Your task to perform on an android device: Go to internet settings Image 0: 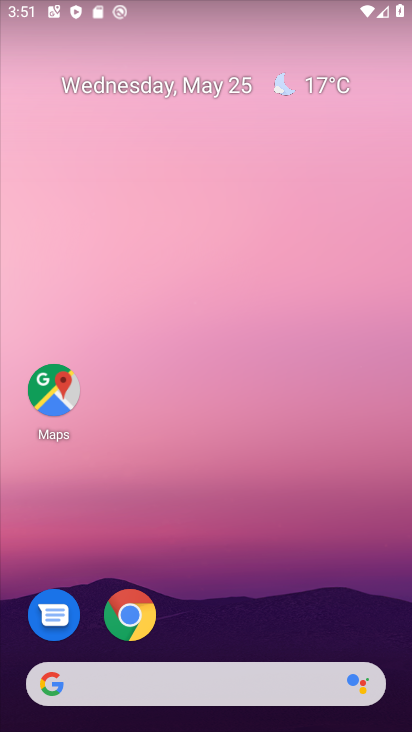
Step 0: drag from (304, 614) to (353, 8)
Your task to perform on an android device: Go to internet settings Image 1: 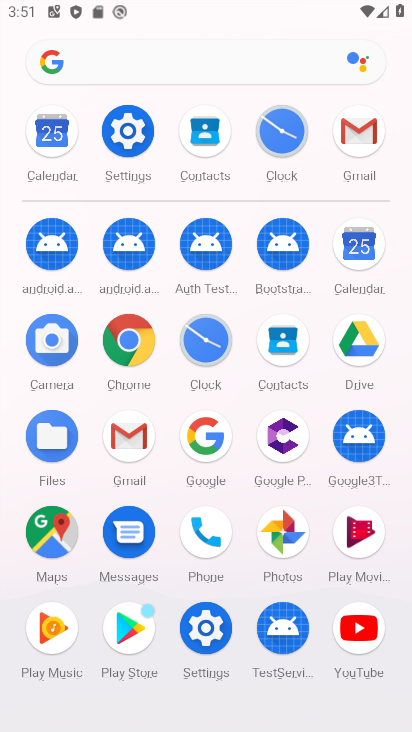
Step 1: click (209, 640)
Your task to perform on an android device: Go to internet settings Image 2: 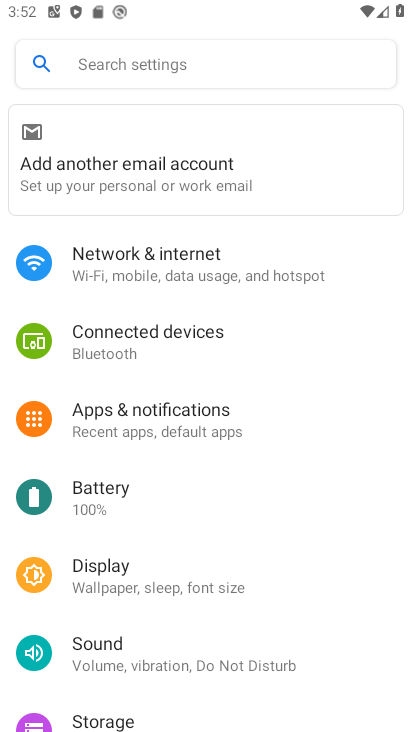
Step 2: click (146, 260)
Your task to perform on an android device: Go to internet settings Image 3: 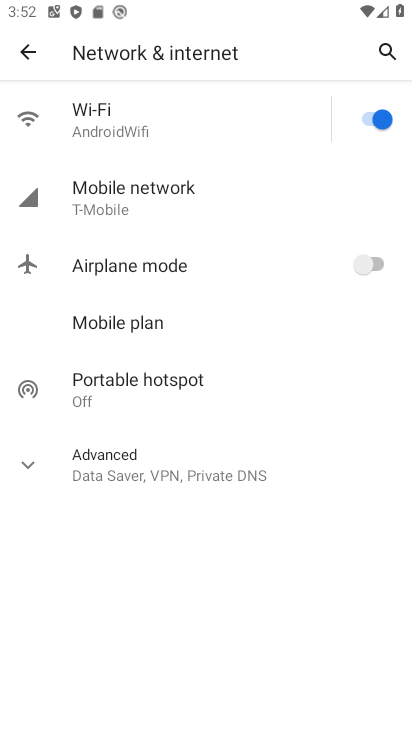
Step 3: task complete